Your task to perform on an android device: Open Chrome and go to settings Image 0: 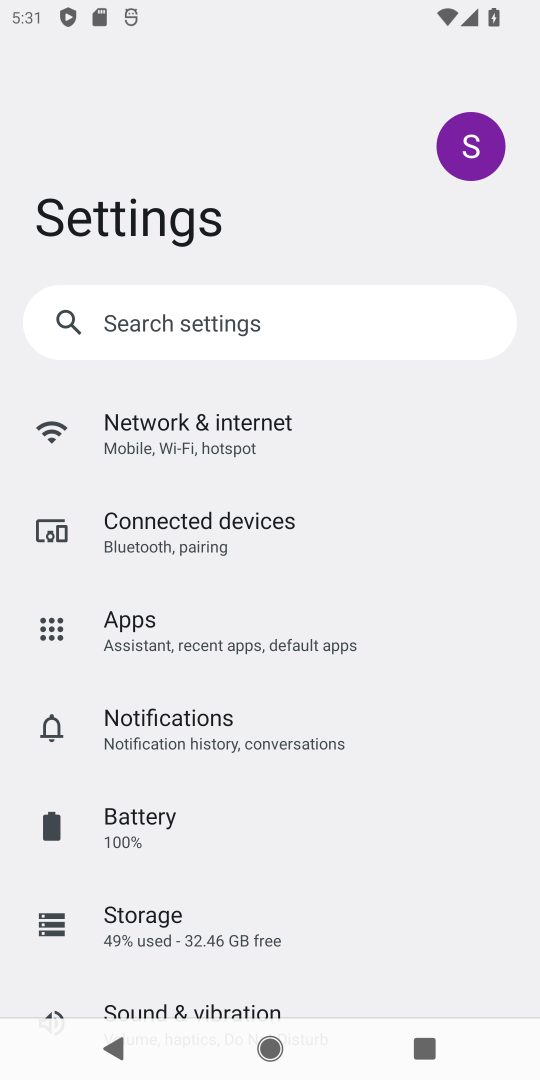
Step 0: press home button
Your task to perform on an android device: Open Chrome and go to settings Image 1: 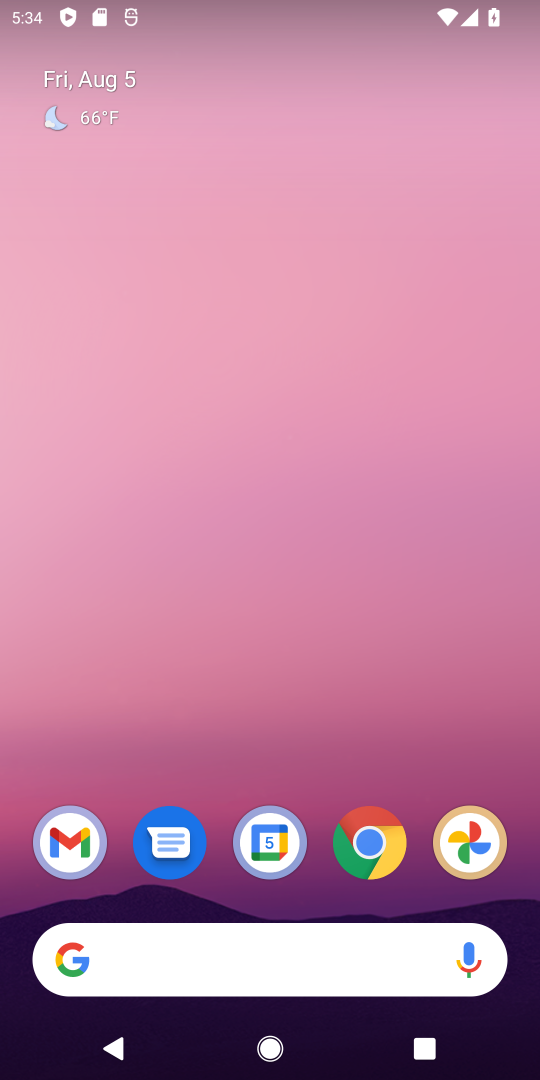
Step 1: task complete